Your task to perform on an android device: Search for seafood restaurants on Google Maps Image 0: 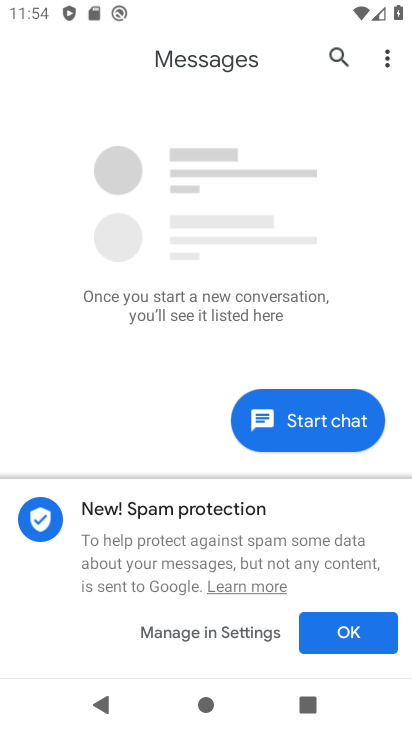
Step 0: press home button
Your task to perform on an android device: Search for seafood restaurants on Google Maps Image 1: 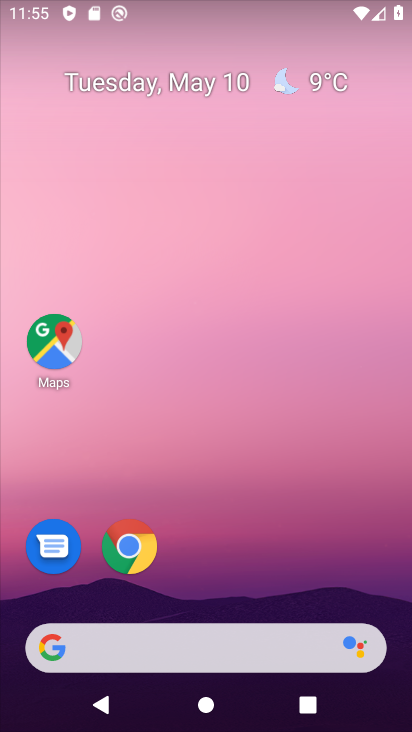
Step 1: click (48, 353)
Your task to perform on an android device: Search for seafood restaurants on Google Maps Image 2: 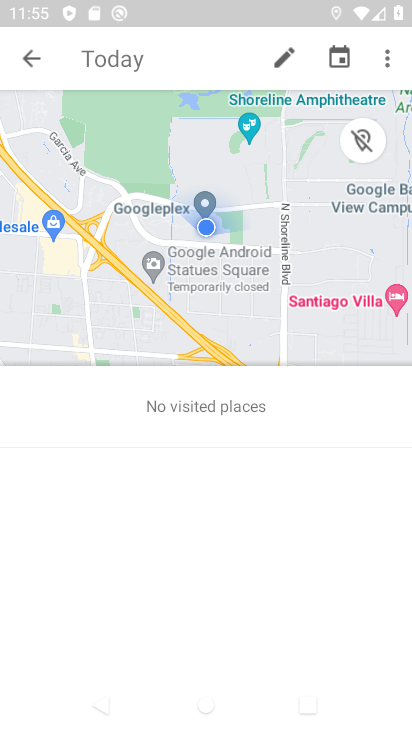
Step 2: click (31, 73)
Your task to perform on an android device: Search for seafood restaurants on Google Maps Image 3: 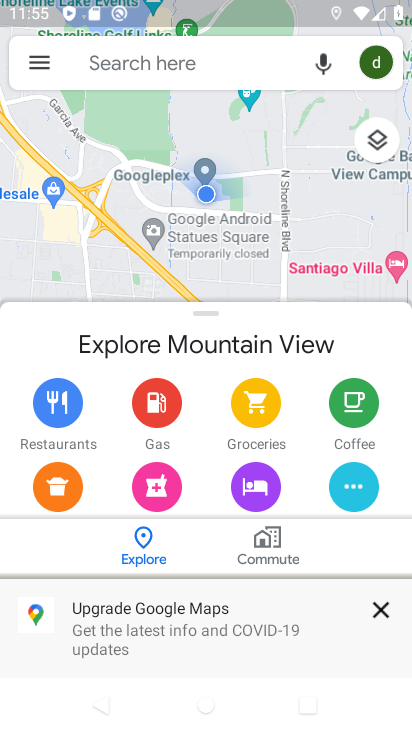
Step 3: click (127, 54)
Your task to perform on an android device: Search for seafood restaurants on Google Maps Image 4: 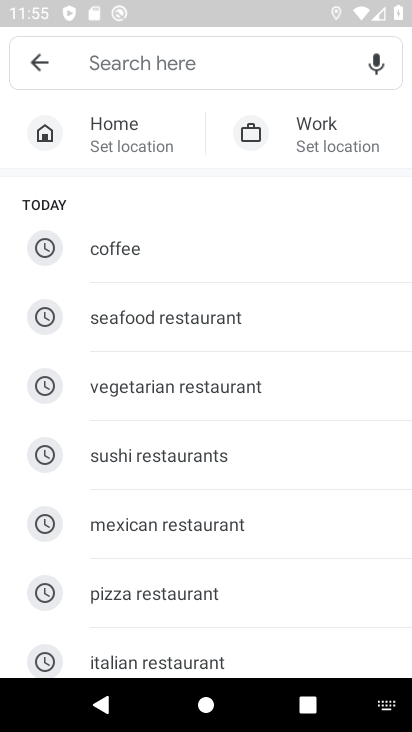
Step 4: click (172, 318)
Your task to perform on an android device: Search for seafood restaurants on Google Maps Image 5: 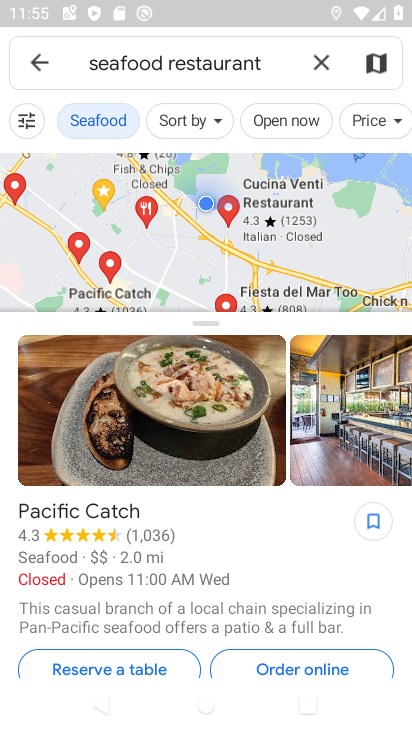
Step 5: task complete